Your task to perform on an android device: turn on the 24-hour format for clock Image 0: 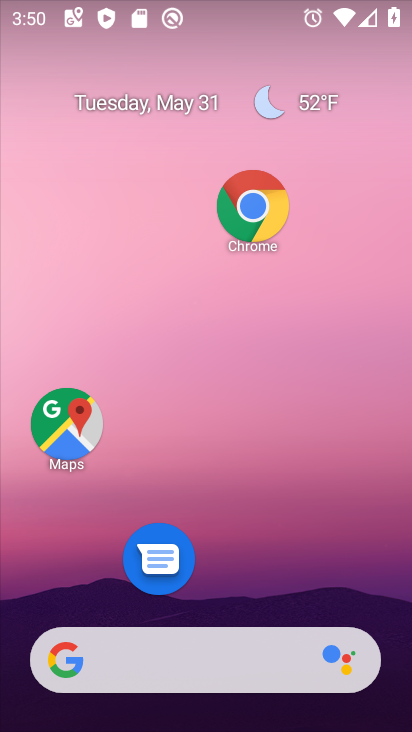
Step 0: drag from (245, 579) to (244, 193)
Your task to perform on an android device: turn on the 24-hour format for clock Image 1: 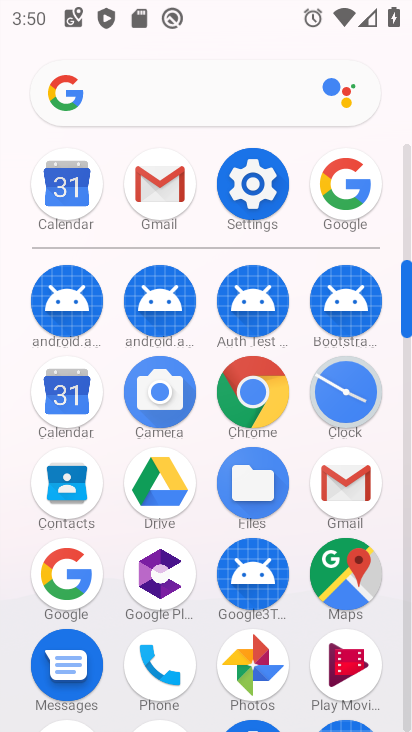
Step 1: click (342, 393)
Your task to perform on an android device: turn on the 24-hour format for clock Image 2: 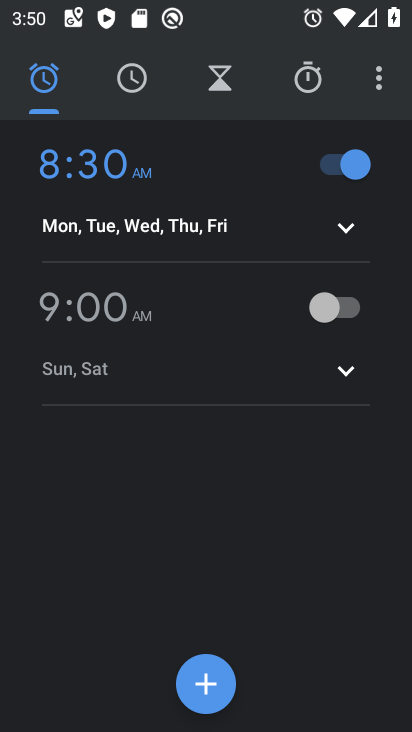
Step 2: click (371, 89)
Your task to perform on an android device: turn on the 24-hour format for clock Image 3: 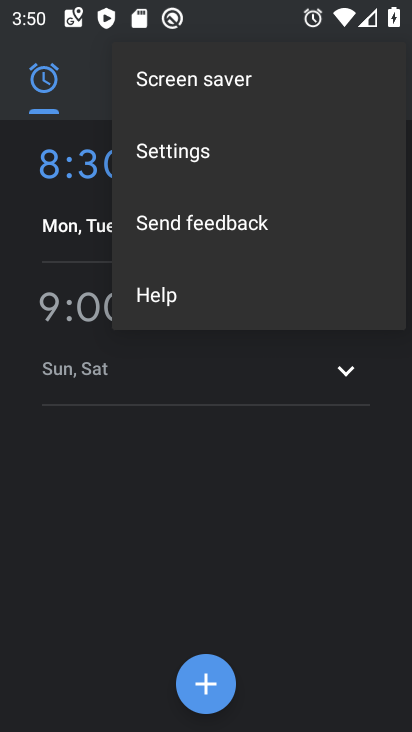
Step 3: click (214, 174)
Your task to perform on an android device: turn on the 24-hour format for clock Image 4: 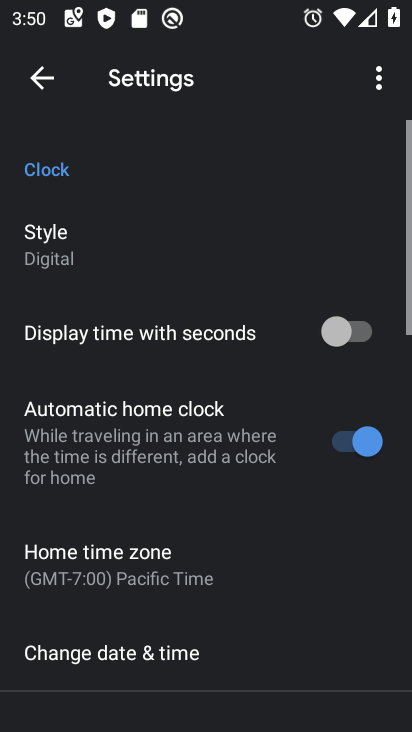
Step 4: drag from (250, 546) to (260, 188)
Your task to perform on an android device: turn on the 24-hour format for clock Image 5: 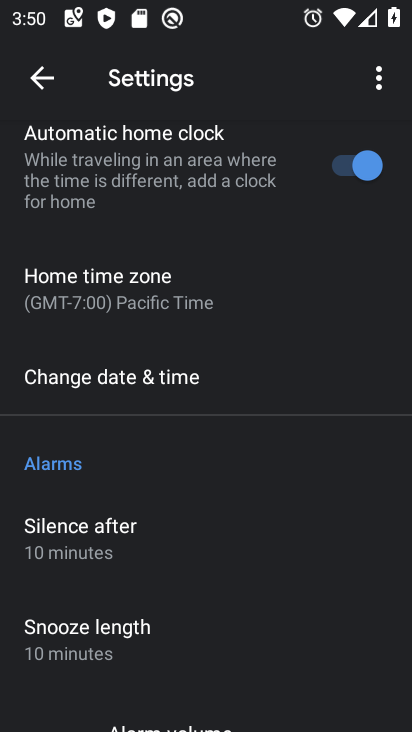
Step 5: click (191, 386)
Your task to perform on an android device: turn on the 24-hour format for clock Image 6: 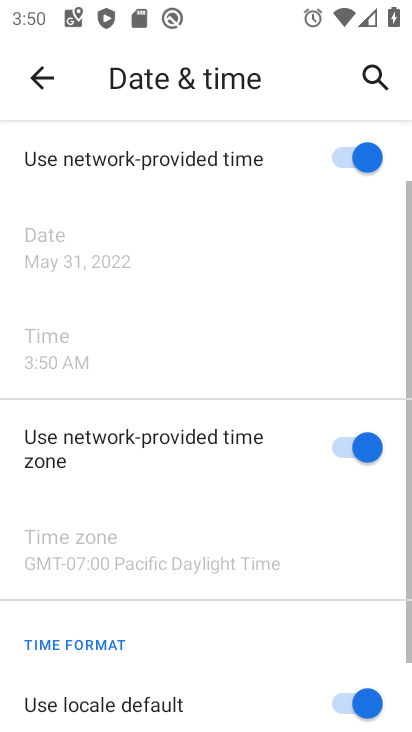
Step 6: drag from (186, 607) to (220, 238)
Your task to perform on an android device: turn on the 24-hour format for clock Image 7: 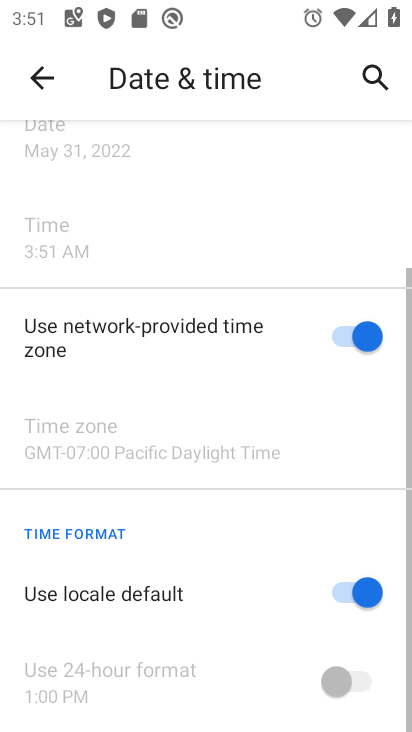
Step 7: click (352, 598)
Your task to perform on an android device: turn on the 24-hour format for clock Image 8: 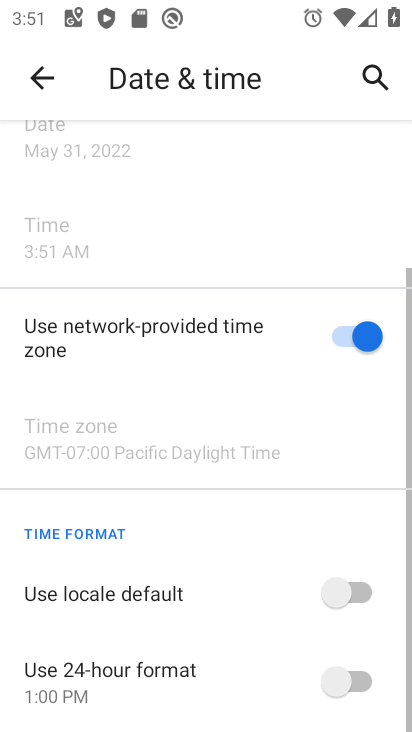
Step 8: click (364, 678)
Your task to perform on an android device: turn on the 24-hour format for clock Image 9: 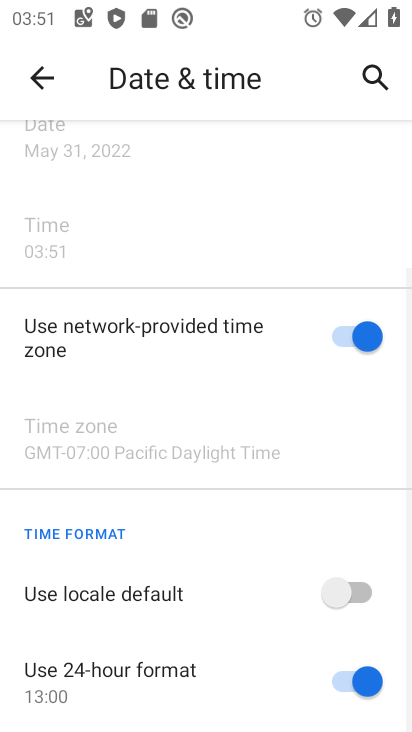
Step 9: task complete